Your task to perform on an android device: Open Chrome and go to settings Image 0: 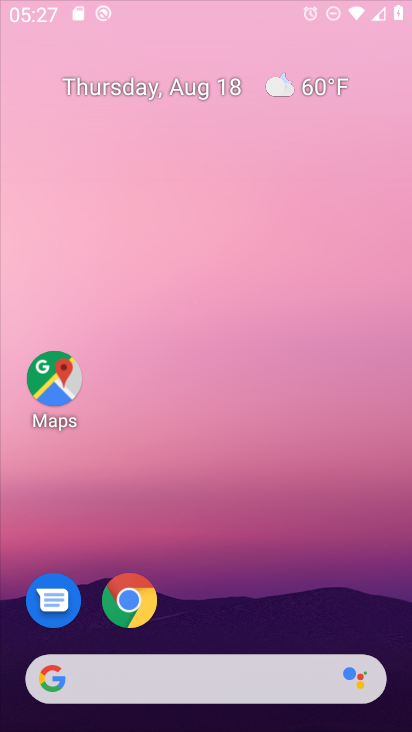
Step 0: press home button
Your task to perform on an android device: Open Chrome and go to settings Image 1: 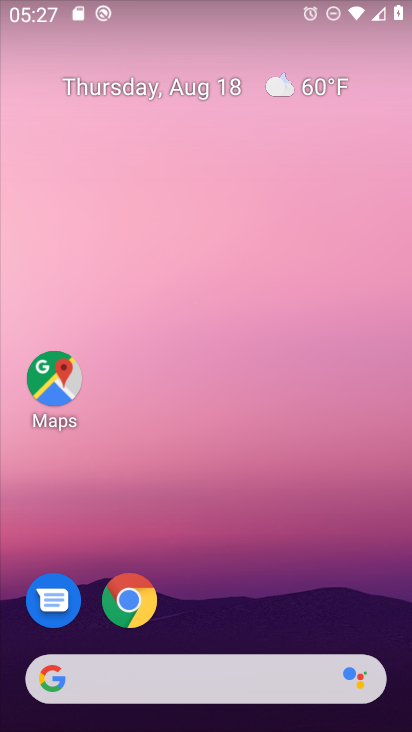
Step 1: click (123, 600)
Your task to perform on an android device: Open Chrome and go to settings Image 2: 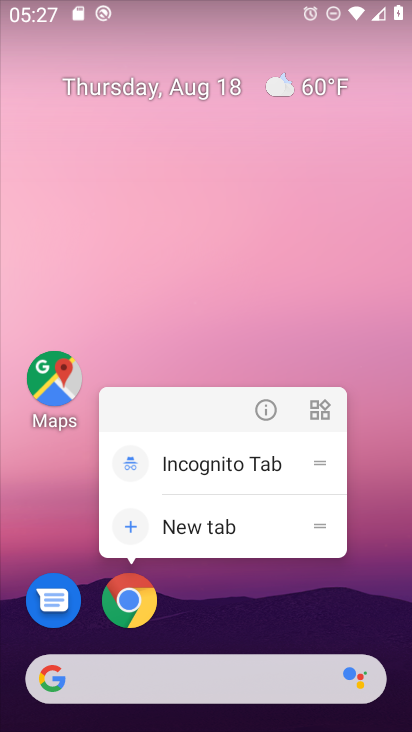
Step 2: click (123, 600)
Your task to perform on an android device: Open Chrome and go to settings Image 3: 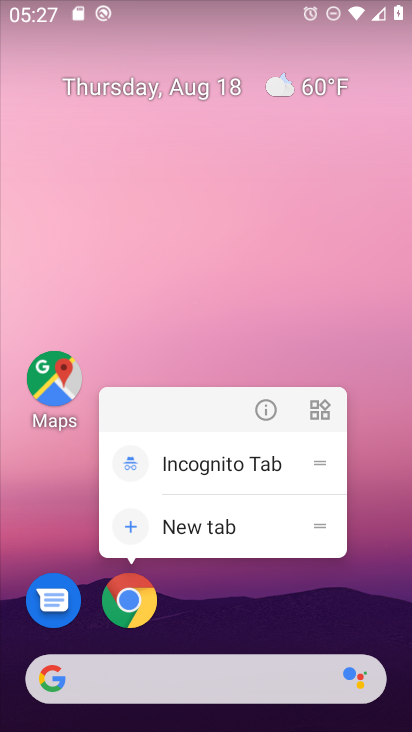
Step 3: click (123, 600)
Your task to perform on an android device: Open Chrome and go to settings Image 4: 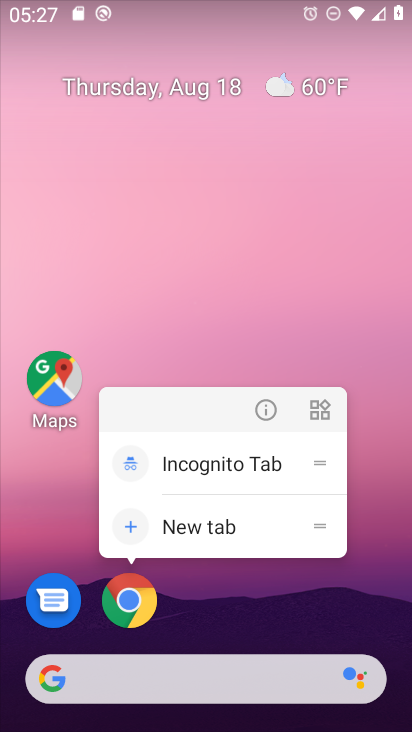
Step 4: click (123, 600)
Your task to perform on an android device: Open Chrome and go to settings Image 5: 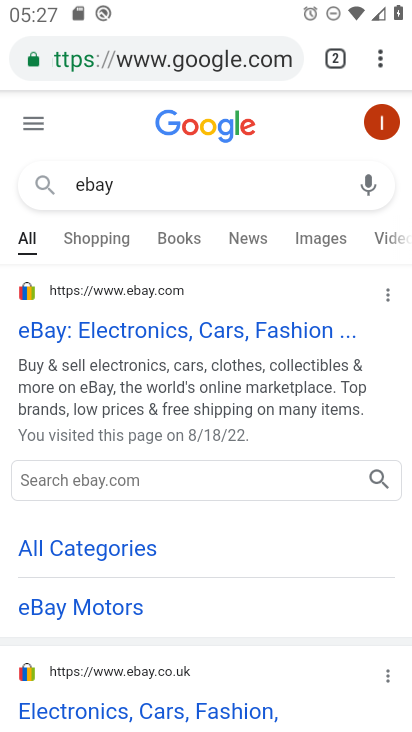
Step 5: task complete